Your task to perform on an android device: Open Google Chrome Image 0: 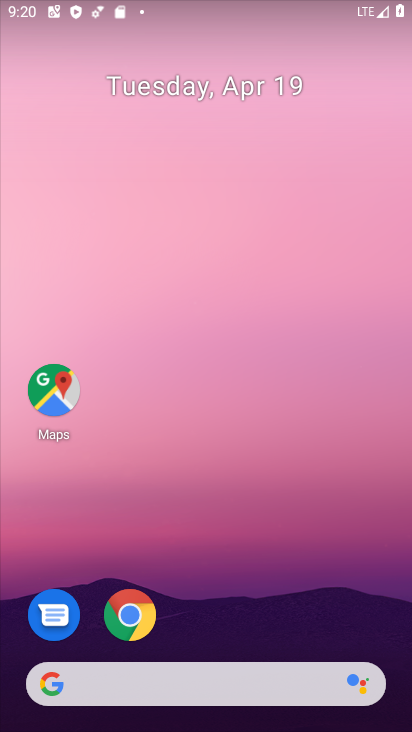
Step 0: click (128, 607)
Your task to perform on an android device: Open Google Chrome Image 1: 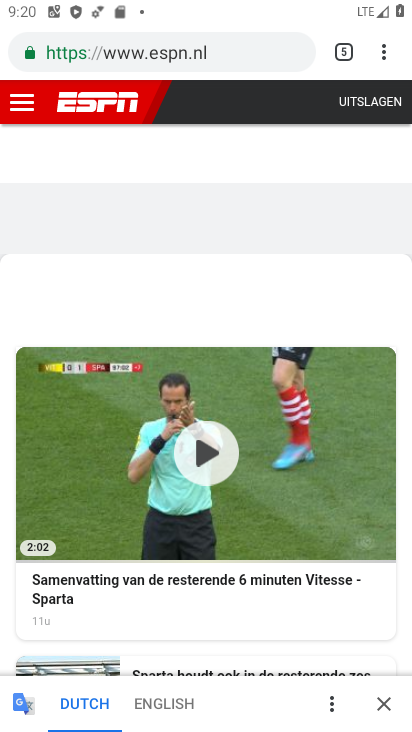
Step 1: task complete